Your task to perform on an android device: turn off smart reply in the gmail app Image 0: 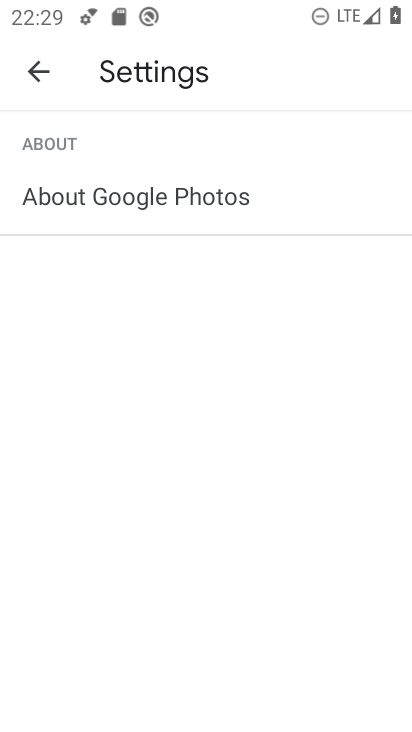
Step 0: press home button
Your task to perform on an android device: turn off smart reply in the gmail app Image 1: 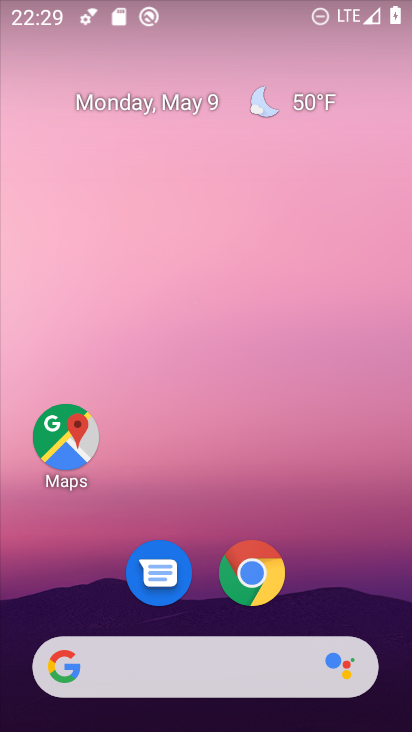
Step 1: drag from (311, 568) to (326, 104)
Your task to perform on an android device: turn off smart reply in the gmail app Image 2: 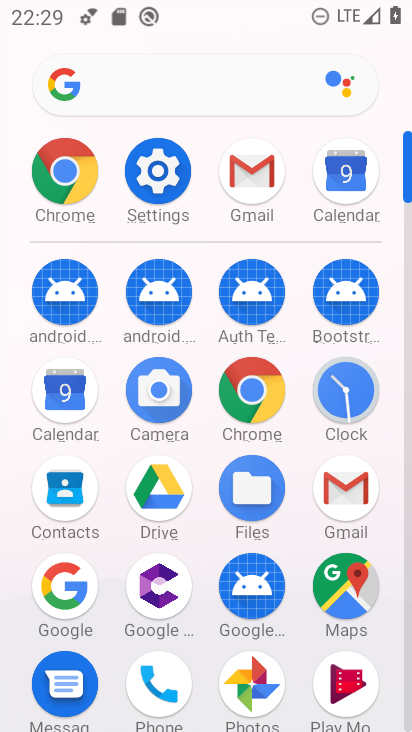
Step 2: click (249, 187)
Your task to perform on an android device: turn off smart reply in the gmail app Image 3: 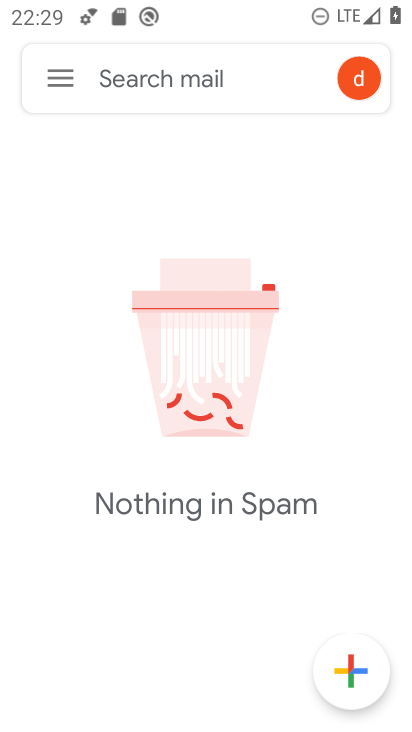
Step 3: click (63, 78)
Your task to perform on an android device: turn off smart reply in the gmail app Image 4: 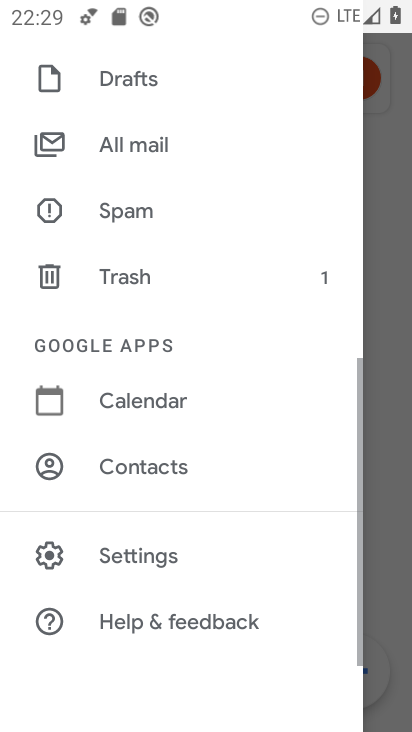
Step 4: click (179, 571)
Your task to perform on an android device: turn off smart reply in the gmail app Image 5: 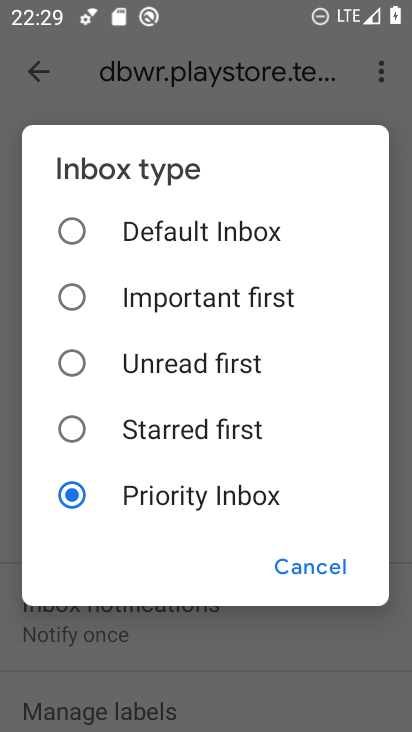
Step 5: click (309, 571)
Your task to perform on an android device: turn off smart reply in the gmail app Image 6: 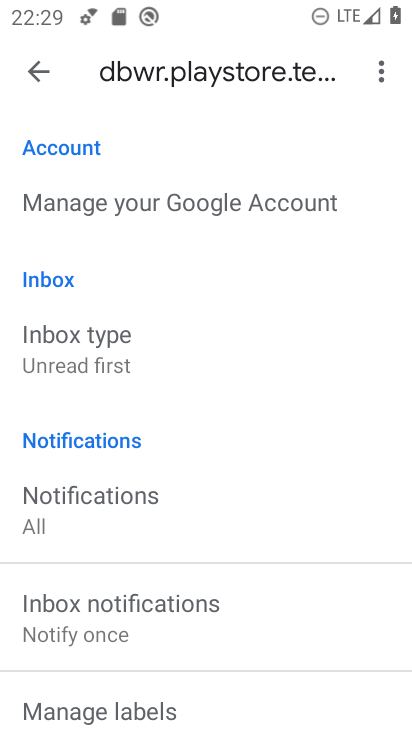
Step 6: drag from (323, 683) to (261, 146)
Your task to perform on an android device: turn off smart reply in the gmail app Image 7: 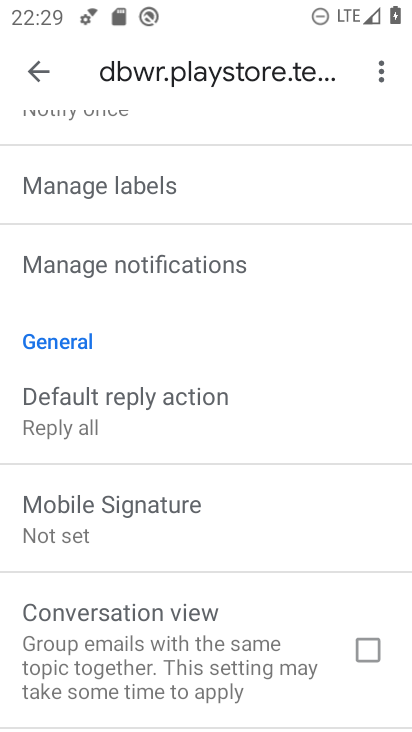
Step 7: drag from (196, 486) to (227, 94)
Your task to perform on an android device: turn off smart reply in the gmail app Image 8: 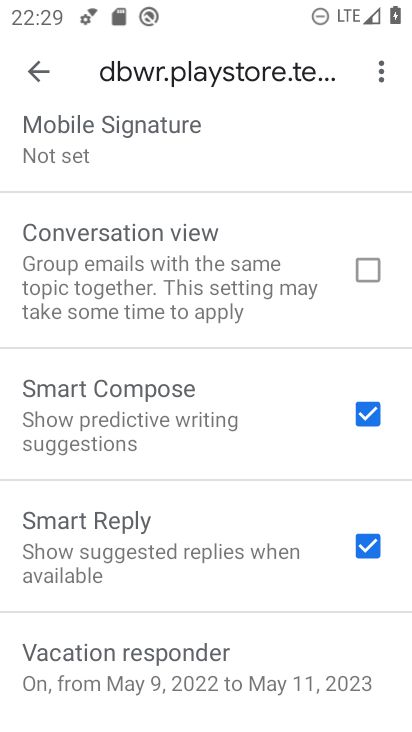
Step 8: click (367, 543)
Your task to perform on an android device: turn off smart reply in the gmail app Image 9: 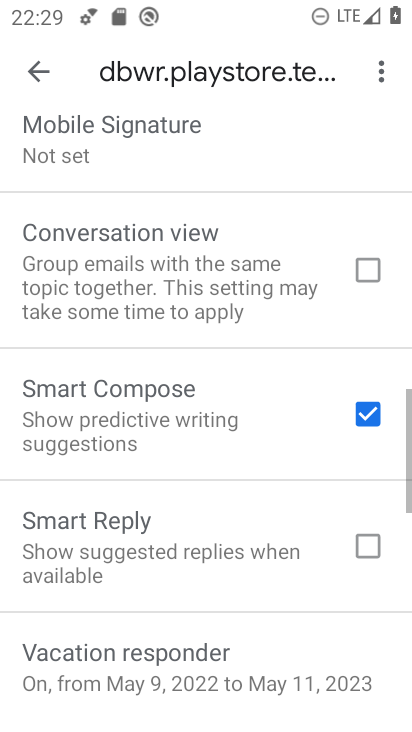
Step 9: task complete